Your task to perform on an android device: toggle javascript in the chrome app Image 0: 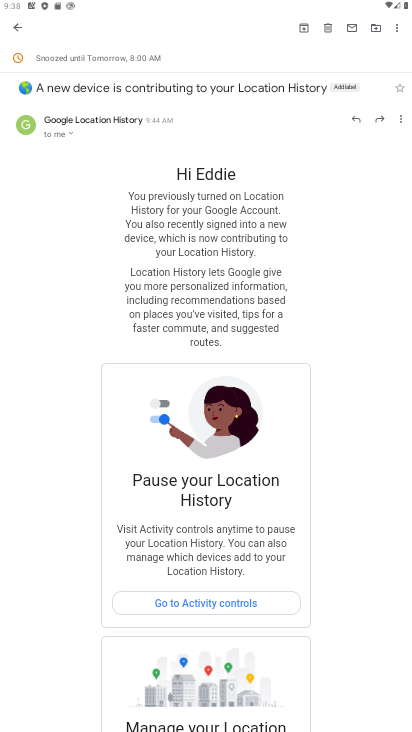
Step 0: press home button
Your task to perform on an android device: toggle javascript in the chrome app Image 1: 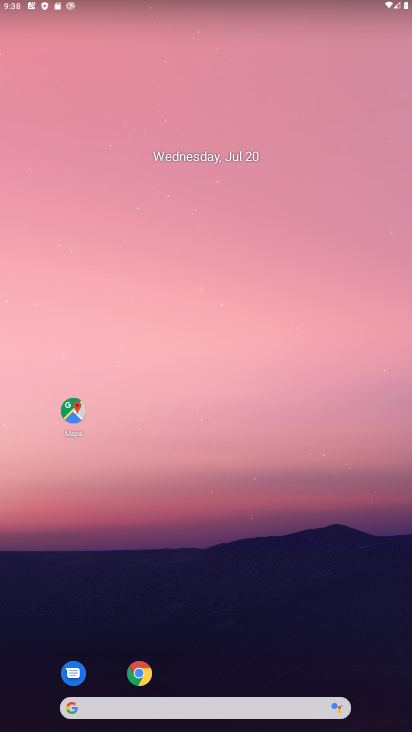
Step 1: click (140, 672)
Your task to perform on an android device: toggle javascript in the chrome app Image 2: 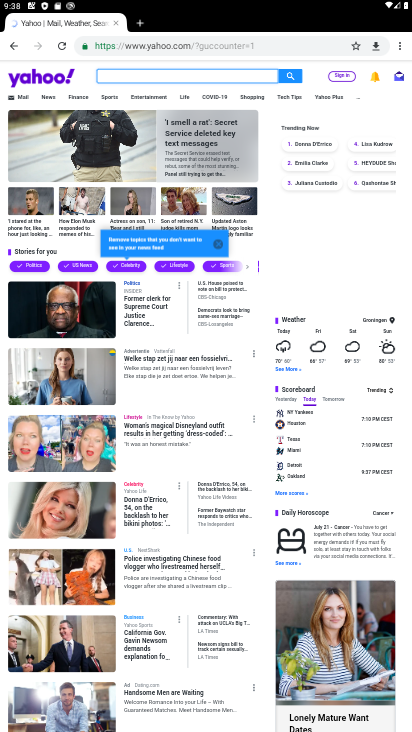
Step 2: click (401, 46)
Your task to perform on an android device: toggle javascript in the chrome app Image 3: 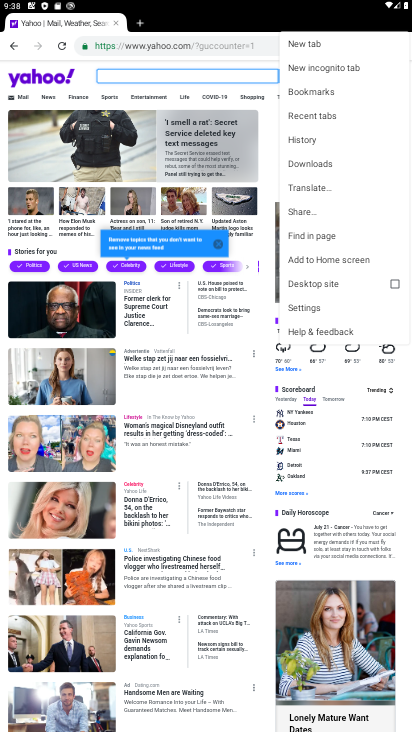
Step 3: click (306, 308)
Your task to perform on an android device: toggle javascript in the chrome app Image 4: 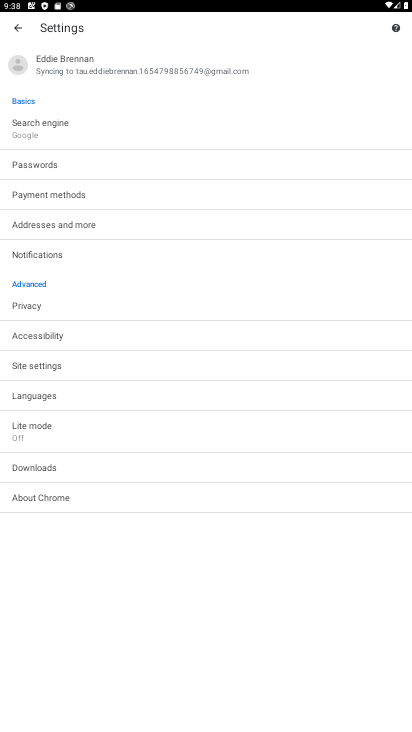
Step 4: click (39, 364)
Your task to perform on an android device: toggle javascript in the chrome app Image 5: 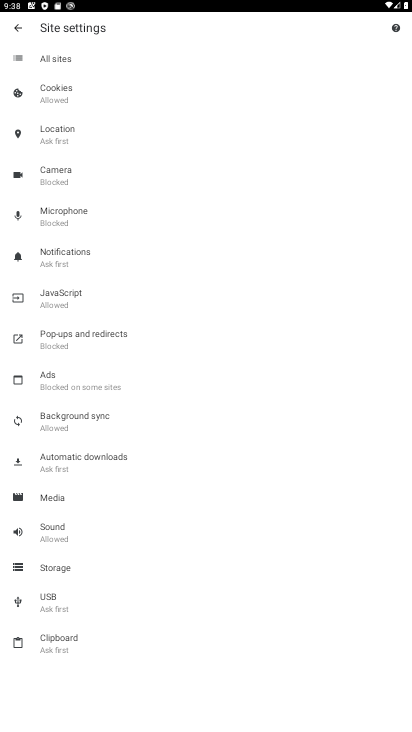
Step 5: click (57, 300)
Your task to perform on an android device: toggle javascript in the chrome app Image 6: 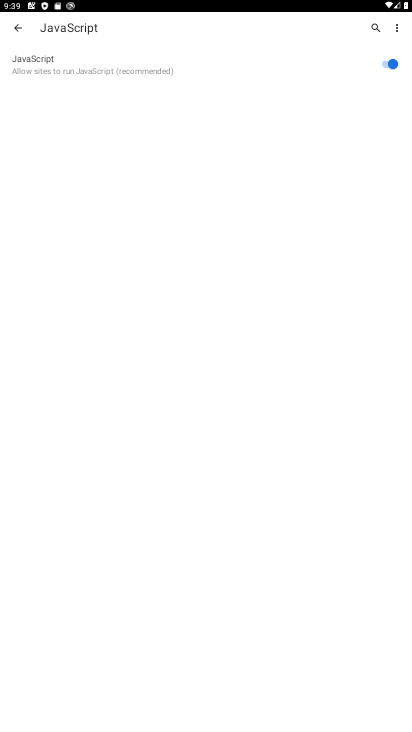
Step 6: click (384, 64)
Your task to perform on an android device: toggle javascript in the chrome app Image 7: 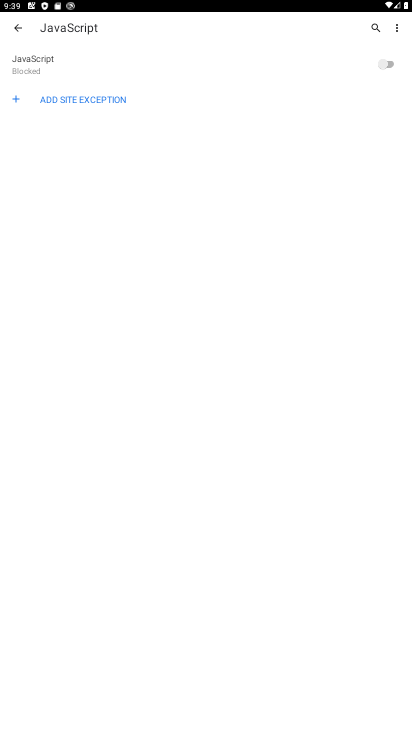
Step 7: task complete